Your task to perform on an android device: check out phone information Image 0: 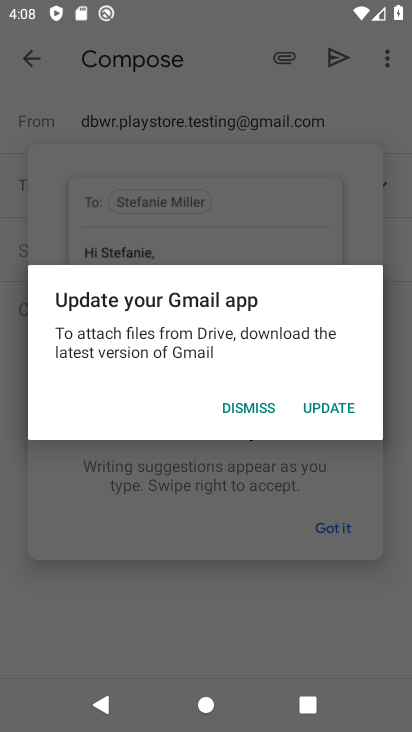
Step 0: press home button
Your task to perform on an android device: check out phone information Image 1: 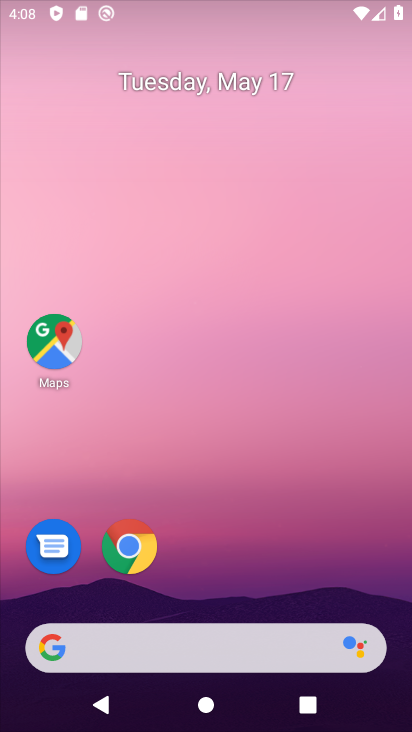
Step 1: drag from (302, 536) to (302, 135)
Your task to perform on an android device: check out phone information Image 2: 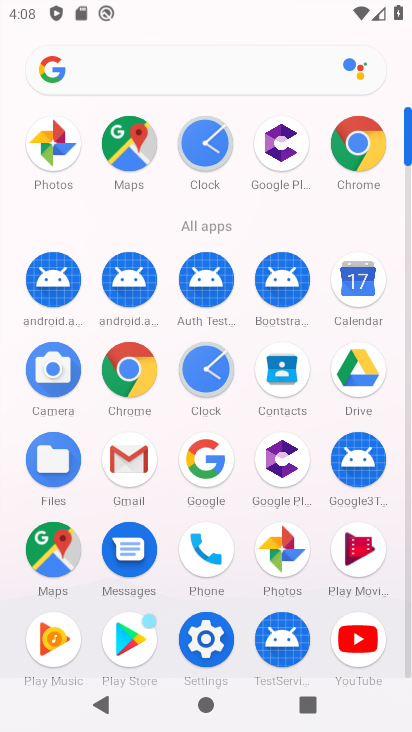
Step 2: click (204, 569)
Your task to perform on an android device: check out phone information Image 3: 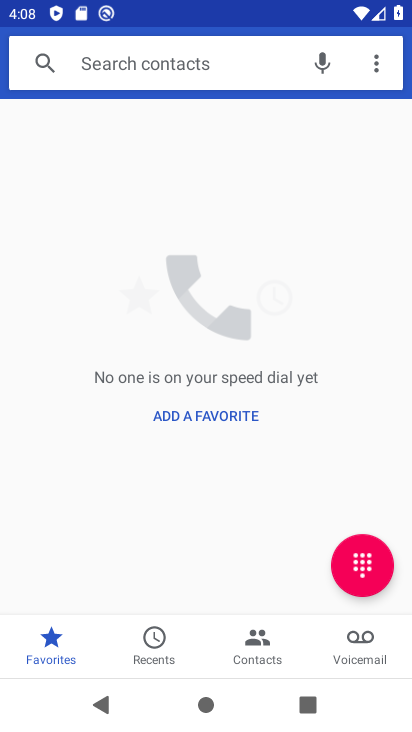
Step 3: click (380, 69)
Your task to perform on an android device: check out phone information Image 4: 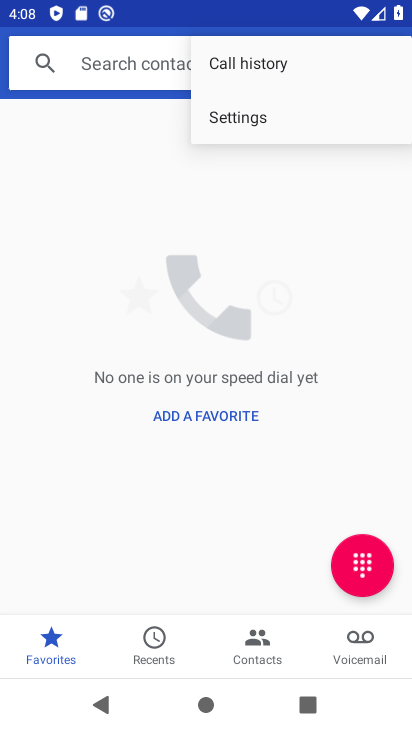
Step 4: click (340, 128)
Your task to perform on an android device: check out phone information Image 5: 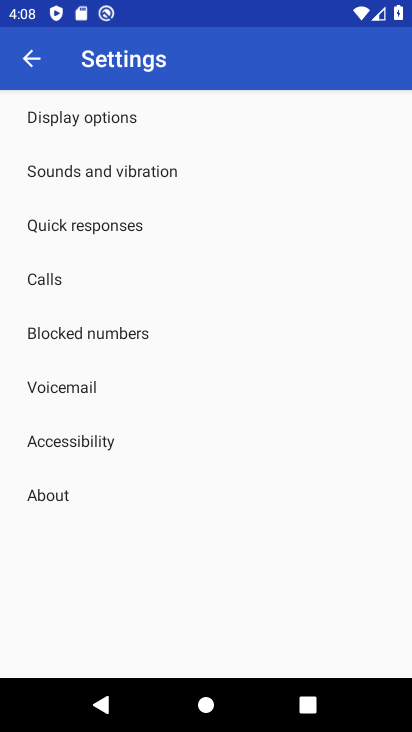
Step 5: click (132, 504)
Your task to perform on an android device: check out phone information Image 6: 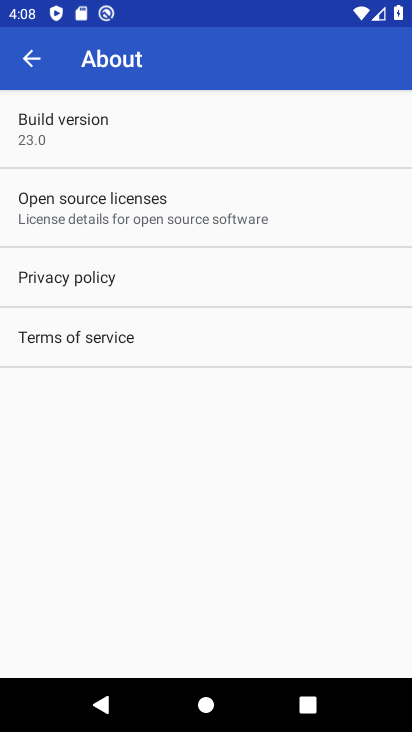
Step 6: task complete